Your task to perform on an android device: Go to calendar. Show me events next week Image 0: 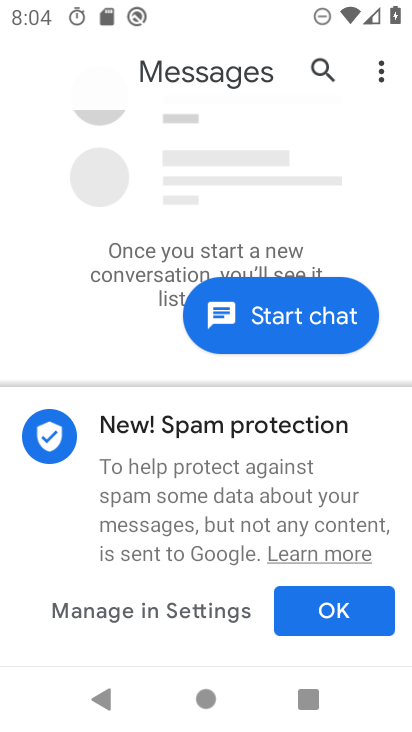
Step 0: press home button
Your task to perform on an android device: Go to calendar. Show me events next week Image 1: 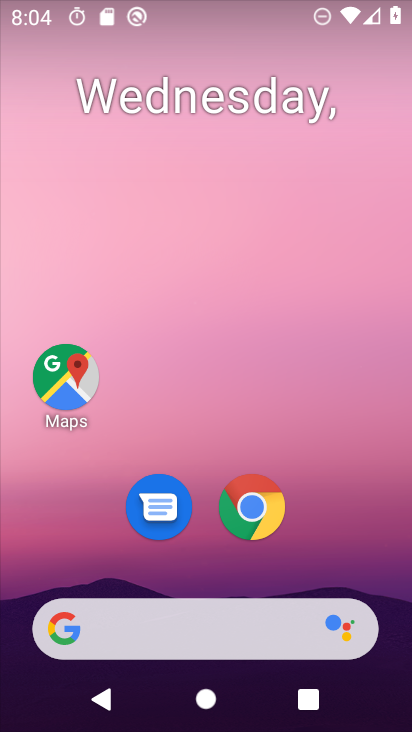
Step 1: drag from (262, 650) to (245, 225)
Your task to perform on an android device: Go to calendar. Show me events next week Image 2: 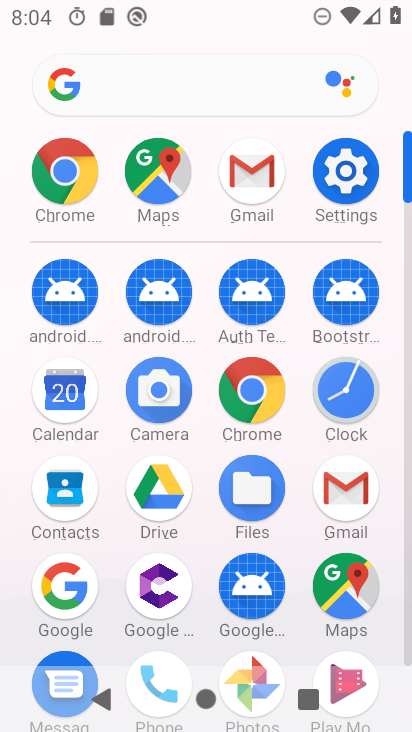
Step 2: click (80, 396)
Your task to perform on an android device: Go to calendar. Show me events next week Image 3: 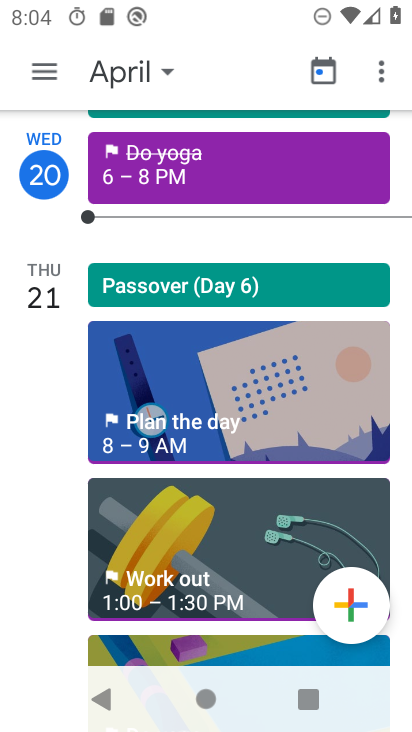
Step 3: click (35, 67)
Your task to perform on an android device: Go to calendar. Show me events next week Image 4: 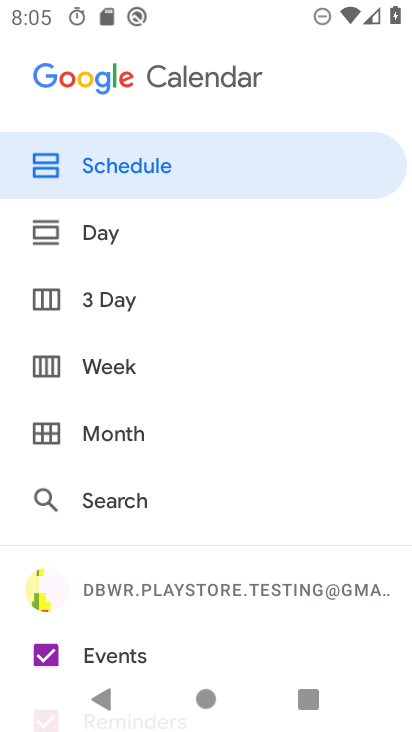
Step 4: click (109, 431)
Your task to perform on an android device: Go to calendar. Show me events next week Image 5: 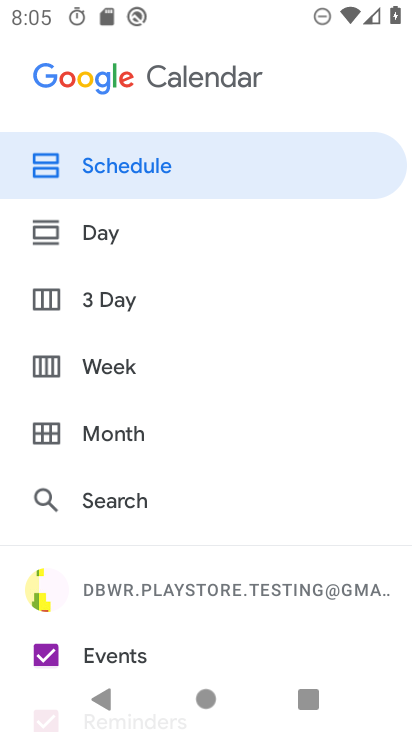
Step 5: click (109, 430)
Your task to perform on an android device: Go to calendar. Show me events next week Image 6: 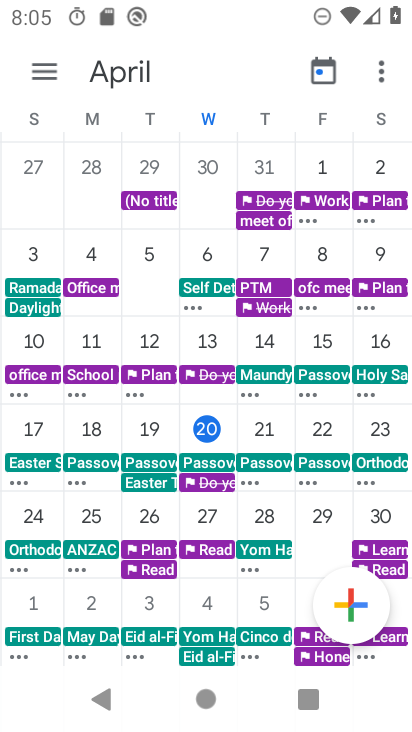
Step 6: click (39, 78)
Your task to perform on an android device: Go to calendar. Show me events next week Image 7: 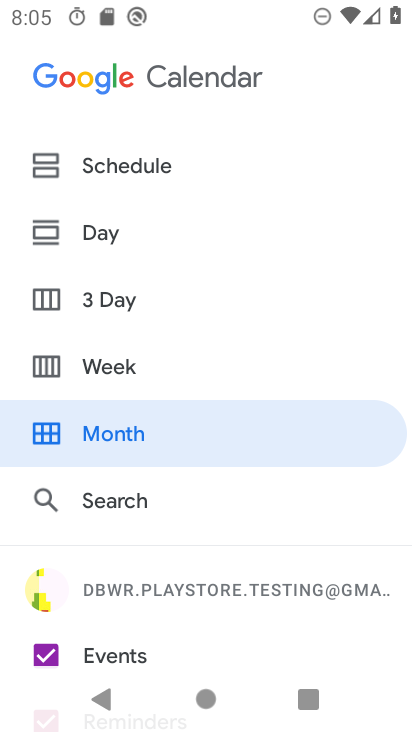
Step 7: click (93, 370)
Your task to perform on an android device: Go to calendar. Show me events next week Image 8: 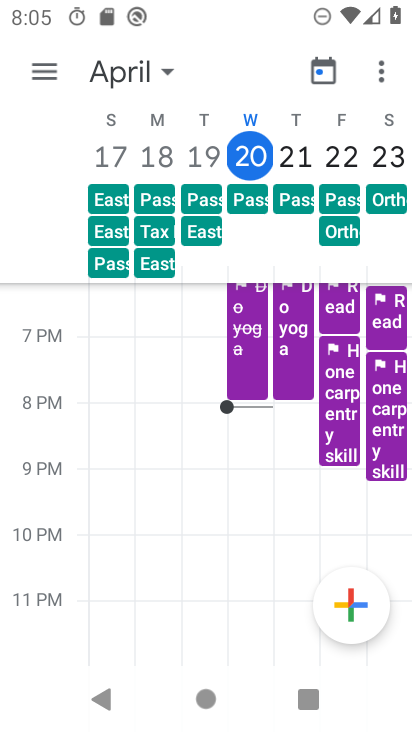
Step 8: task complete